Your task to perform on an android device: Open the calendar and show me this week's events? Image 0: 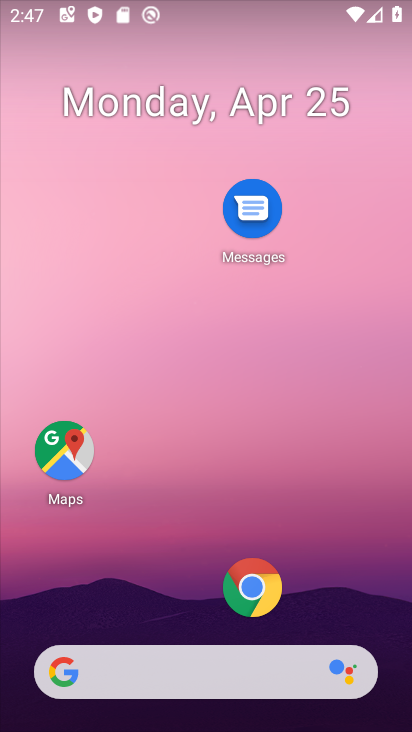
Step 0: drag from (189, 582) to (173, 166)
Your task to perform on an android device: Open the calendar and show me this week's events? Image 1: 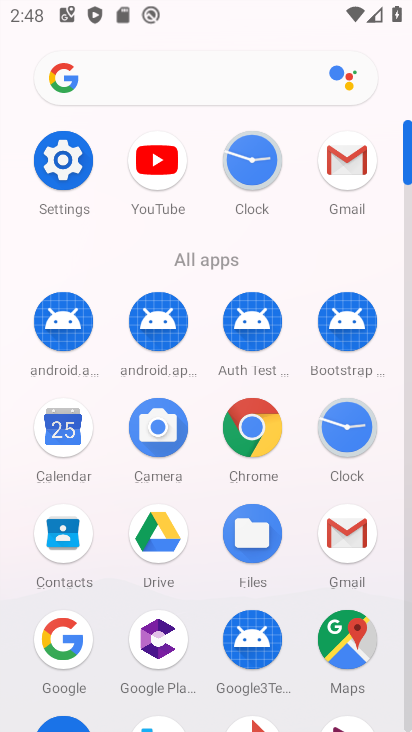
Step 1: click (74, 445)
Your task to perform on an android device: Open the calendar and show me this week's events? Image 2: 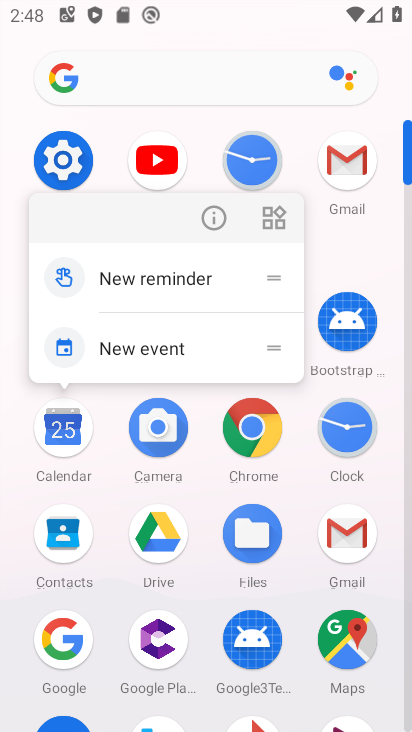
Step 2: click (215, 224)
Your task to perform on an android device: Open the calendar and show me this week's events? Image 3: 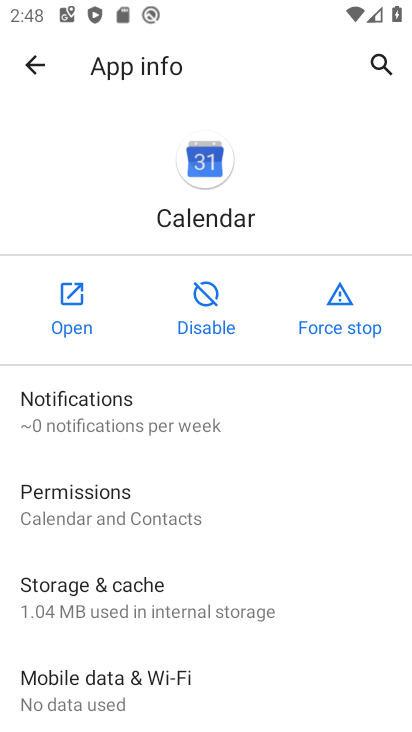
Step 3: click (76, 323)
Your task to perform on an android device: Open the calendar and show me this week's events? Image 4: 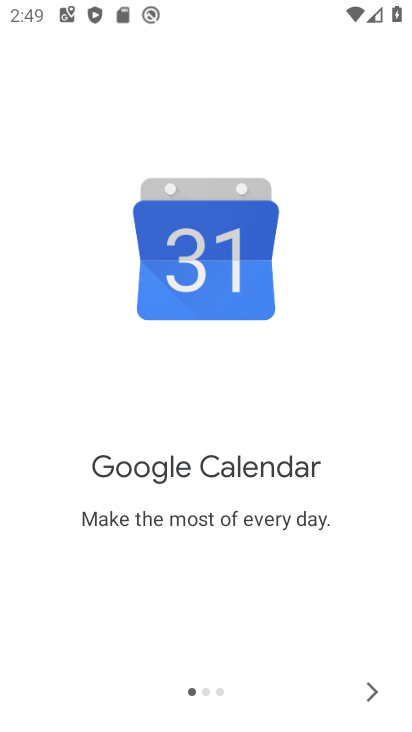
Step 4: click (363, 691)
Your task to perform on an android device: Open the calendar and show me this week's events? Image 5: 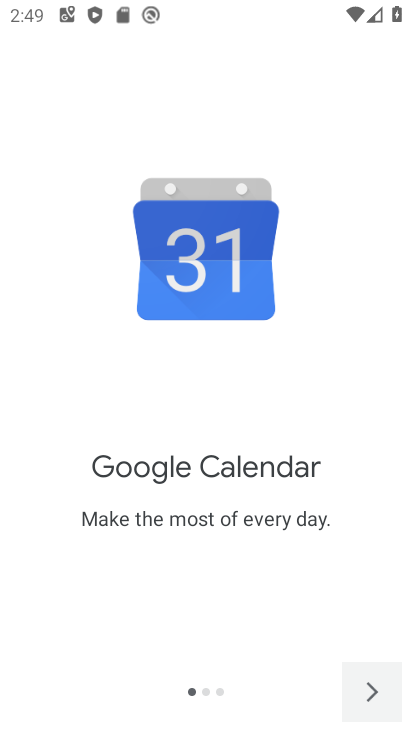
Step 5: click (363, 690)
Your task to perform on an android device: Open the calendar and show me this week's events? Image 6: 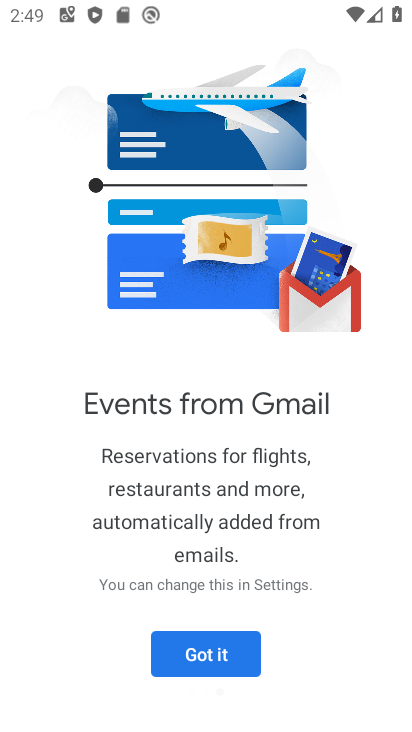
Step 6: click (363, 690)
Your task to perform on an android device: Open the calendar and show me this week's events? Image 7: 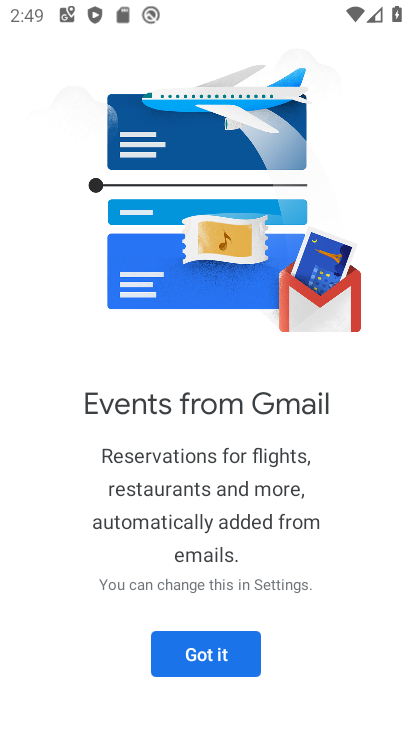
Step 7: click (186, 668)
Your task to perform on an android device: Open the calendar and show me this week's events? Image 8: 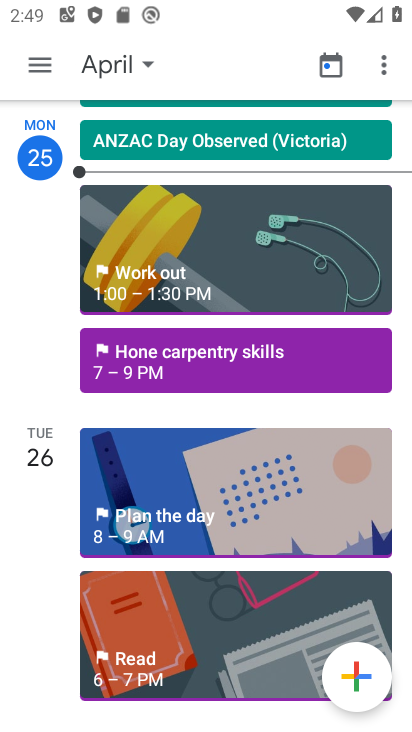
Step 8: click (63, 67)
Your task to perform on an android device: Open the calendar and show me this week's events? Image 9: 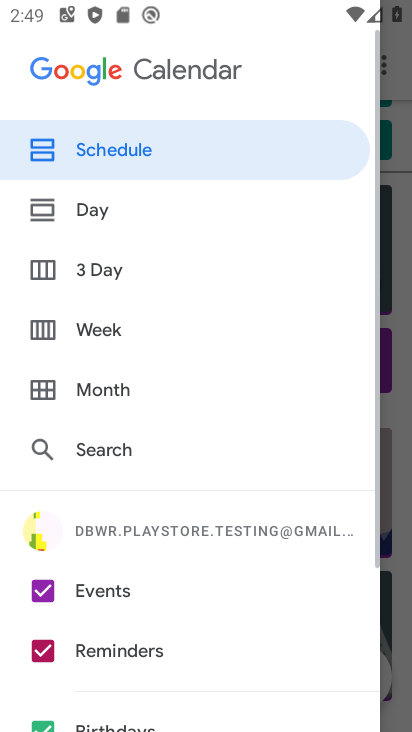
Step 9: click (108, 325)
Your task to perform on an android device: Open the calendar and show me this week's events? Image 10: 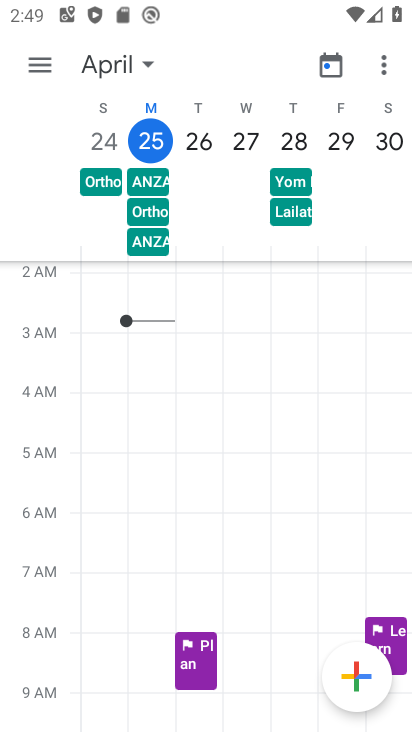
Step 10: task complete